Your task to perform on an android device: allow notifications from all sites in the chrome app Image 0: 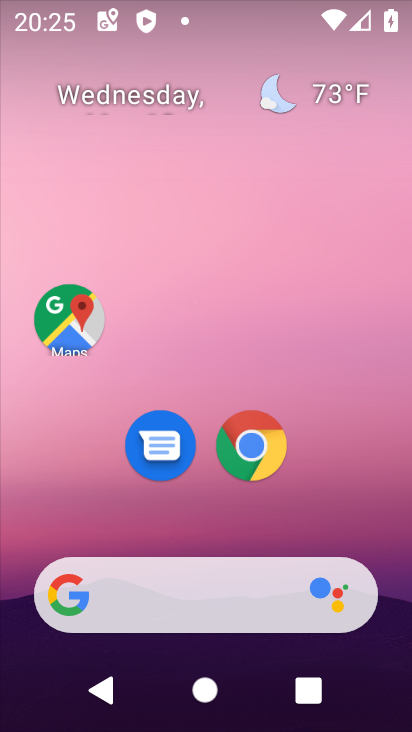
Step 0: drag from (308, 453) to (318, 178)
Your task to perform on an android device: allow notifications from all sites in the chrome app Image 1: 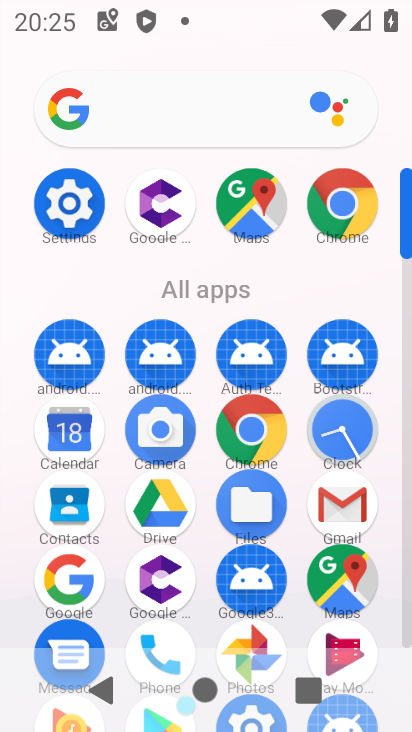
Step 1: click (259, 437)
Your task to perform on an android device: allow notifications from all sites in the chrome app Image 2: 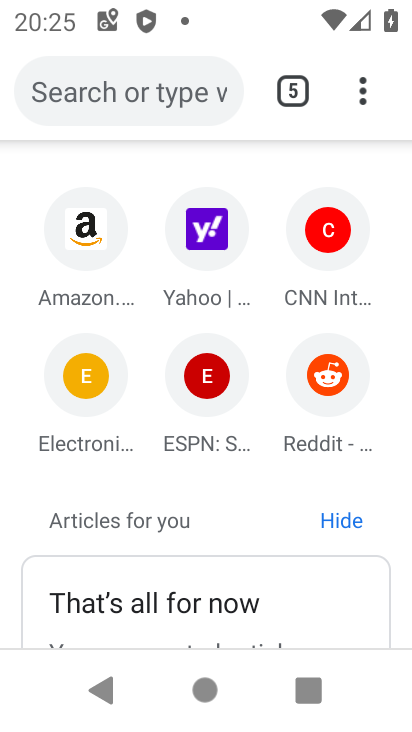
Step 2: click (361, 92)
Your task to perform on an android device: allow notifications from all sites in the chrome app Image 3: 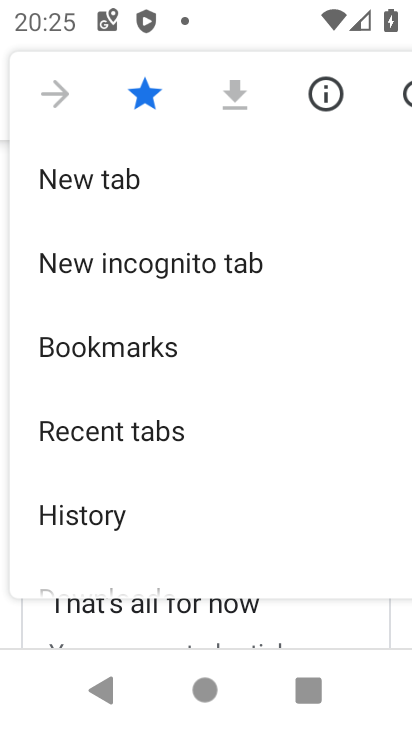
Step 3: drag from (243, 519) to (290, 157)
Your task to perform on an android device: allow notifications from all sites in the chrome app Image 4: 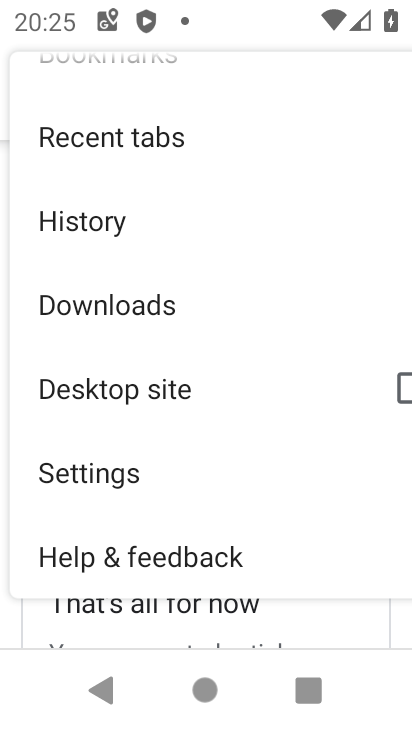
Step 4: click (129, 482)
Your task to perform on an android device: allow notifications from all sites in the chrome app Image 5: 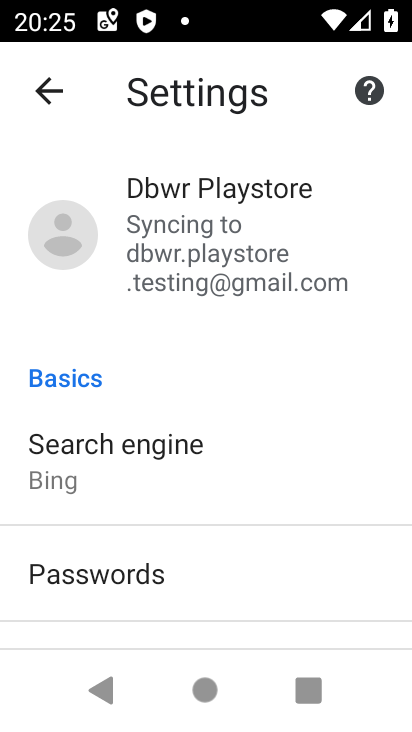
Step 5: drag from (205, 583) to (233, 248)
Your task to perform on an android device: allow notifications from all sites in the chrome app Image 6: 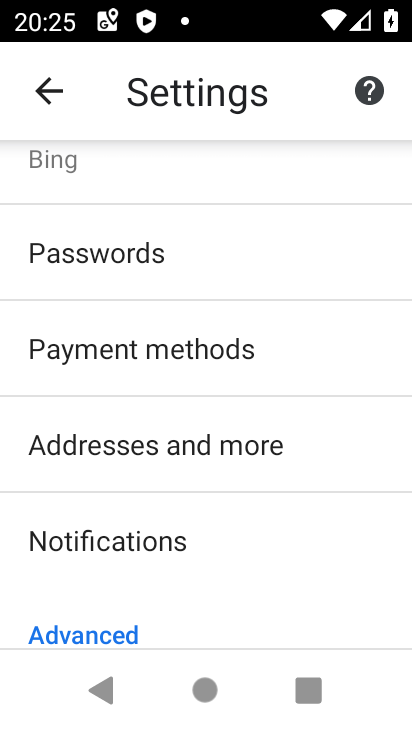
Step 6: drag from (271, 522) to (285, 104)
Your task to perform on an android device: allow notifications from all sites in the chrome app Image 7: 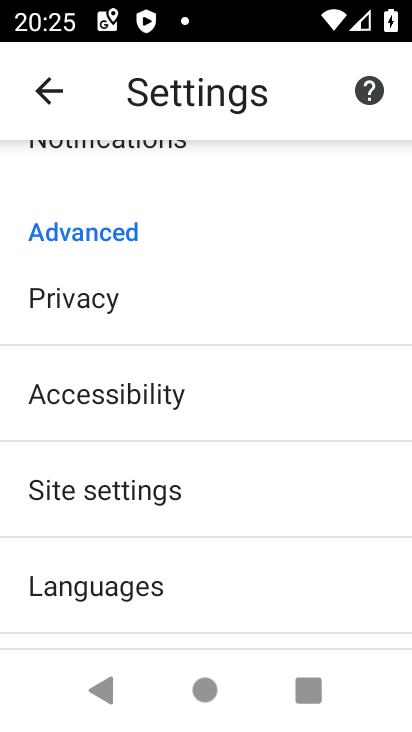
Step 7: click (164, 503)
Your task to perform on an android device: allow notifications from all sites in the chrome app Image 8: 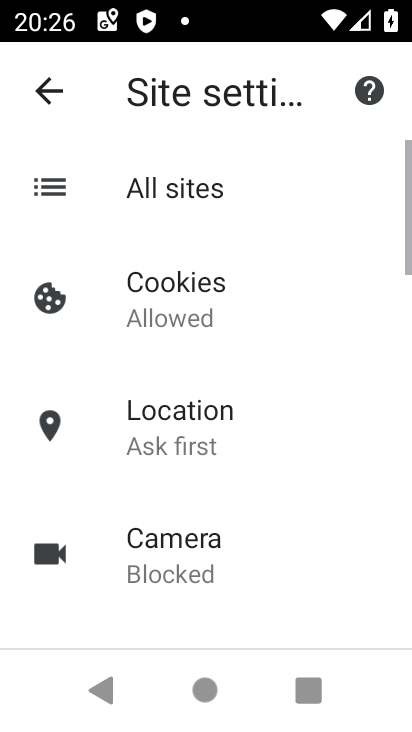
Step 8: click (213, 291)
Your task to perform on an android device: allow notifications from all sites in the chrome app Image 9: 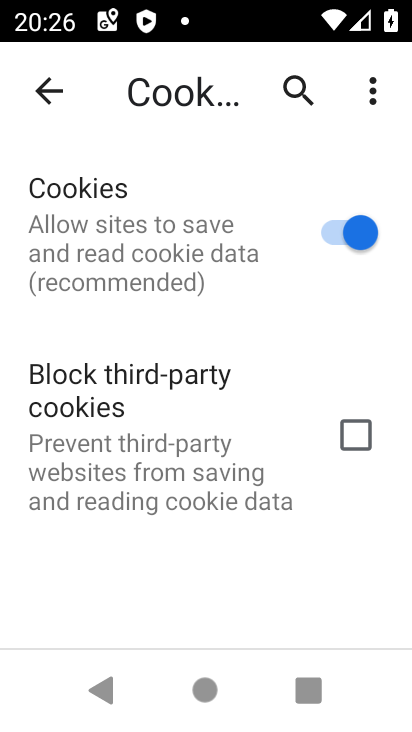
Step 9: click (39, 75)
Your task to perform on an android device: allow notifications from all sites in the chrome app Image 10: 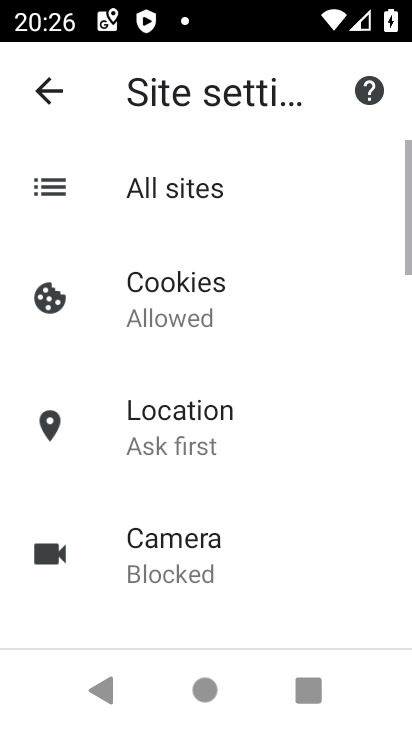
Step 10: task complete